Your task to perform on an android device: toggle location history Image 0: 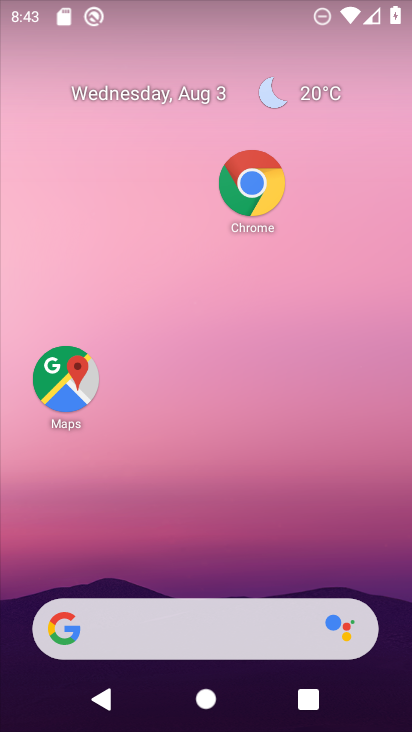
Step 0: drag from (173, 545) to (173, 16)
Your task to perform on an android device: toggle location history Image 1: 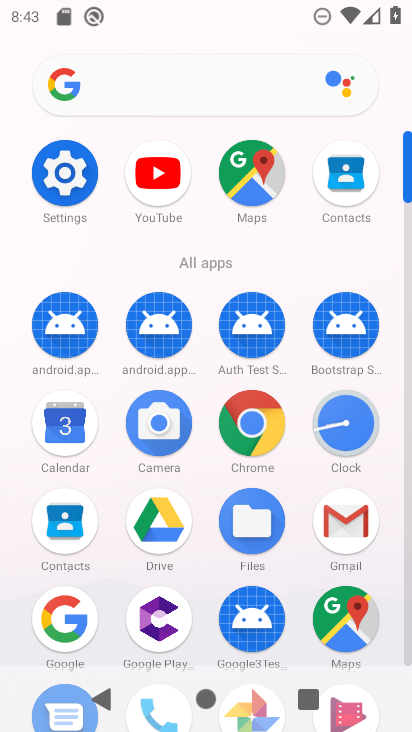
Step 1: click (56, 178)
Your task to perform on an android device: toggle location history Image 2: 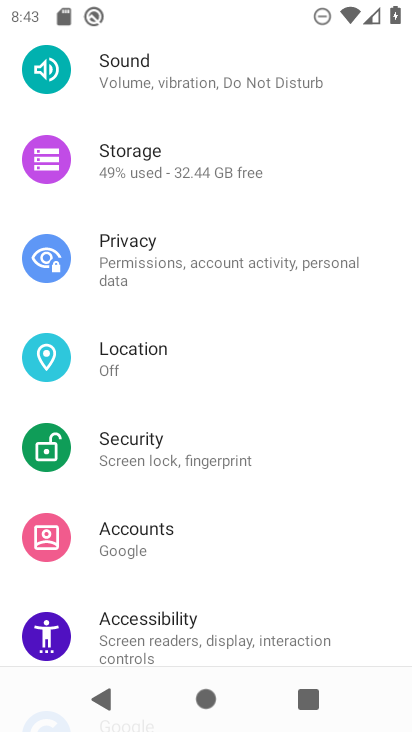
Step 2: click (137, 361)
Your task to perform on an android device: toggle location history Image 3: 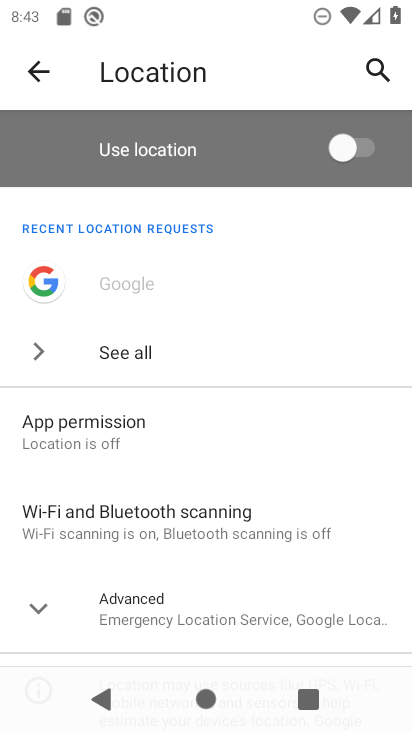
Step 3: click (126, 622)
Your task to perform on an android device: toggle location history Image 4: 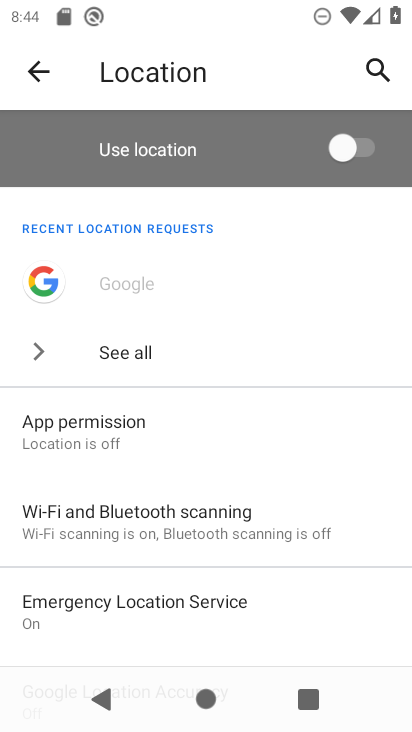
Step 4: click (205, 350)
Your task to perform on an android device: toggle location history Image 5: 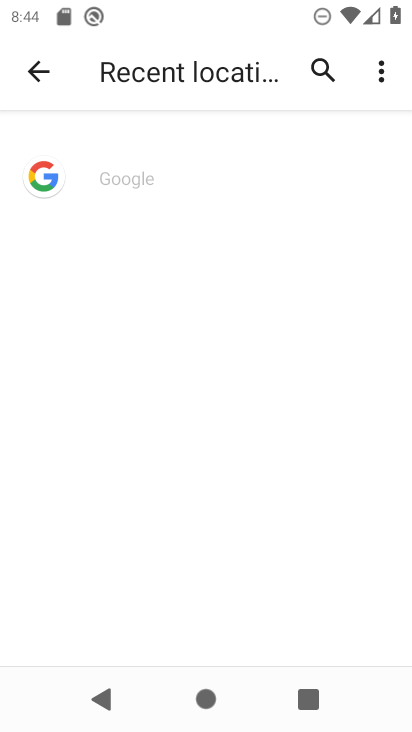
Step 5: click (36, 75)
Your task to perform on an android device: toggle location history Image 6: 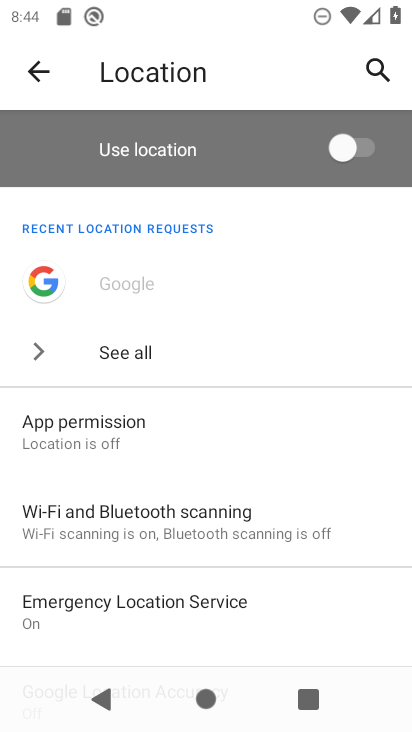
Step 6: drag from (153, 565) to (186, 335)
Your task to perform on an android device: toggle location history Image 7: 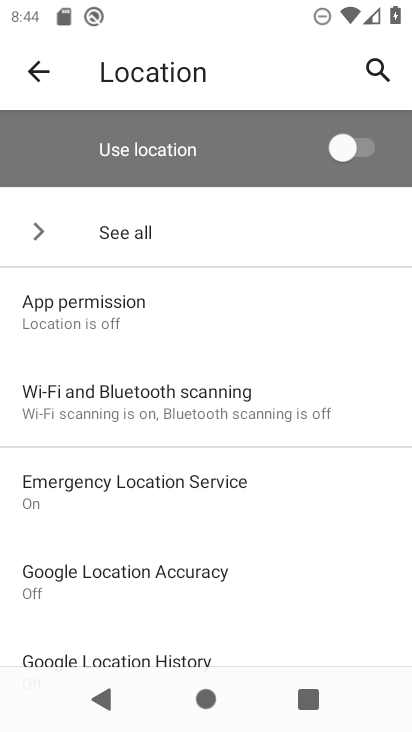
Step 7: click (110, 655)
Your task to perform on an android device: toggle location history Image 8: 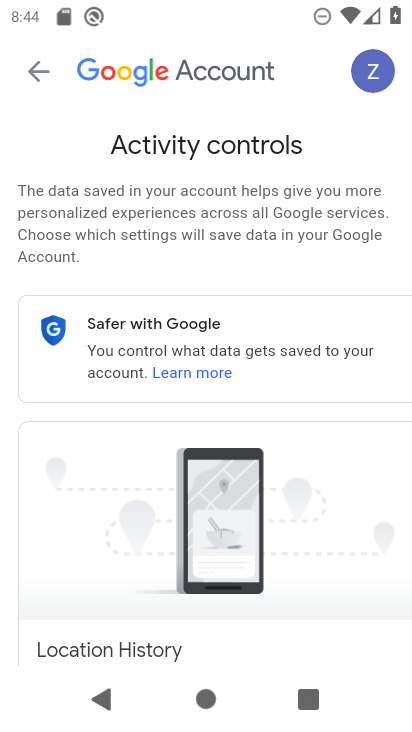
Step 8: task complete